Your task to perform on an android device: Open calendar and show me the fourth week of next month Image 0: 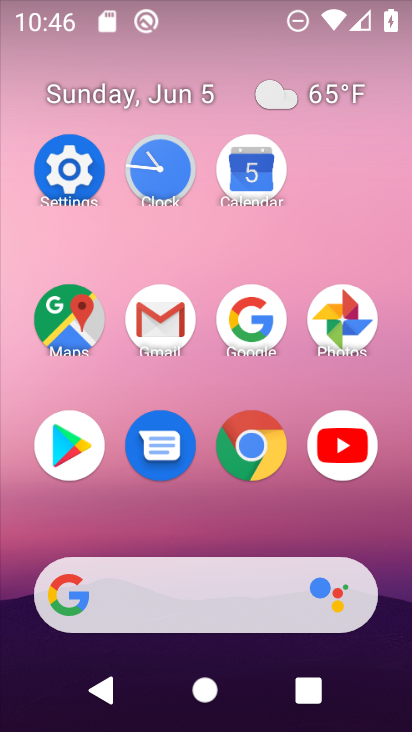
Step 0: click (5, 381)
Your task to perform on an android device: Open calendar and show me the fourth week of next month Image 1: 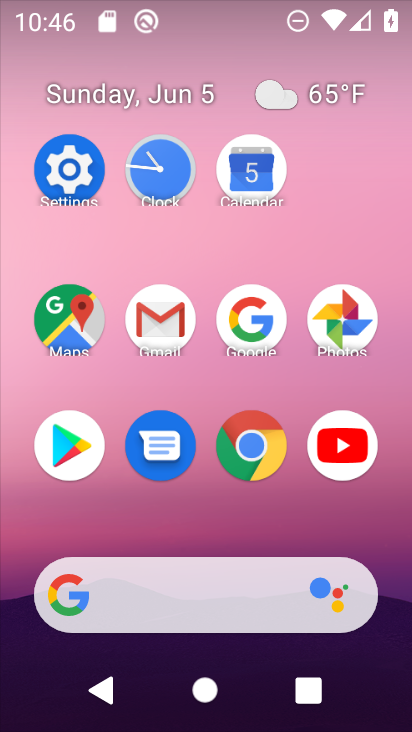
Step 1: click (260, 164)
Your task to perform on an android device: Open calendar and show me the fourth week of next month Image 2: 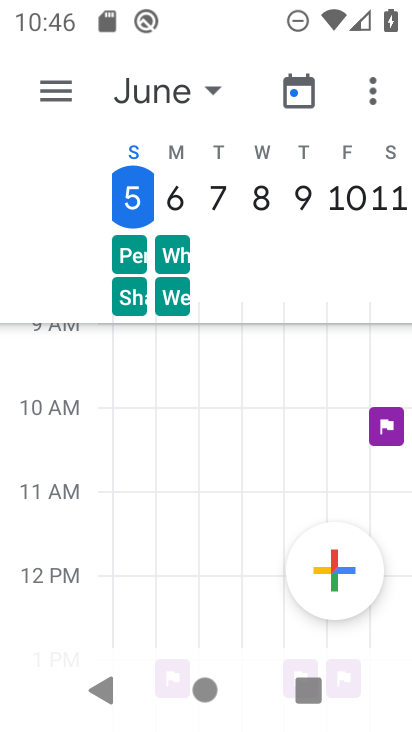
Step 2: click (181, 87)
Your task to perform on an android device: Open calendar and show me the fourth week of next month Image 3: 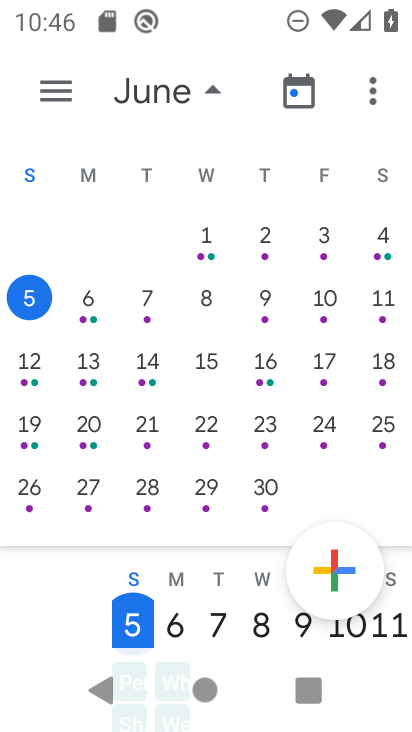
Step 3: drag from (358, 288) to (56, 216)
Your task to perform on an android device: Open calendar and show me the fourth week of next month Image 4: 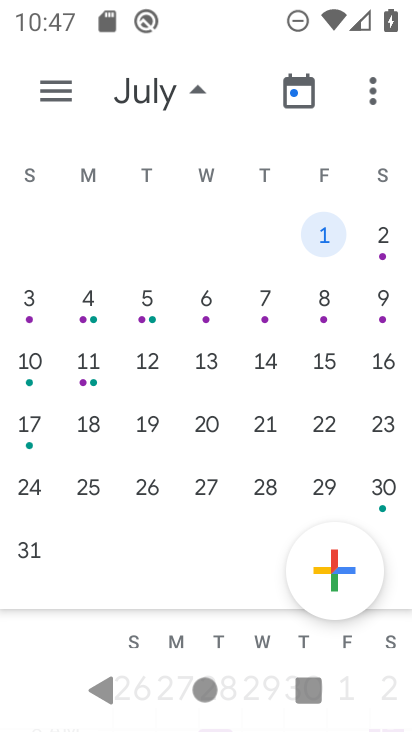
Step 4: click (63, 100)
Your task to perform on an android device: Open calendar and show me the fourth week of next month Image 5: 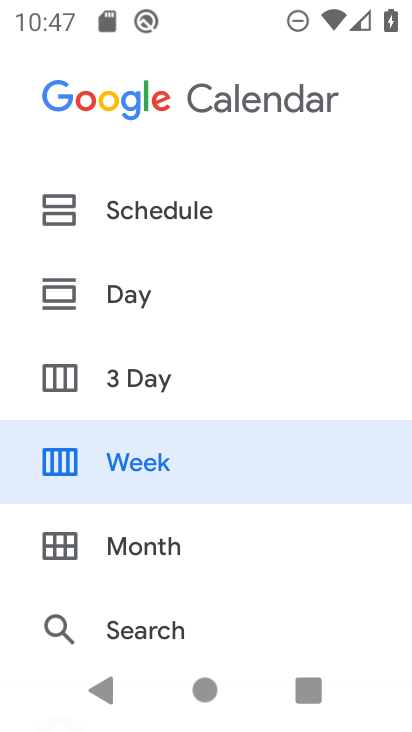
Step 5: click (175, 460)
Your task to perform on an android device: Open calendar and show me the fourth week of next month Image 6: 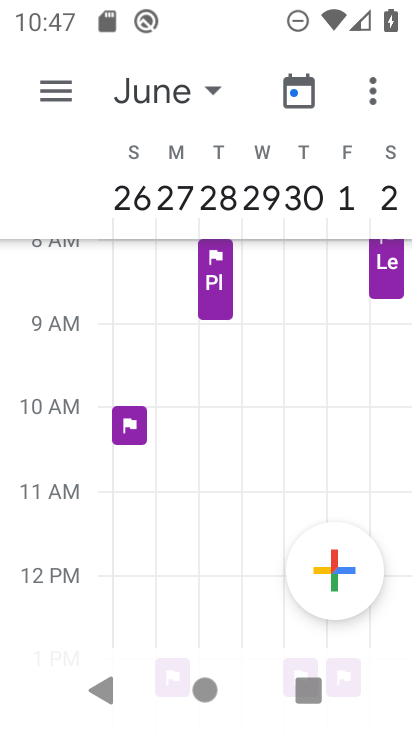
Step 6: task complete